Your task to perform on an android device: Install the Facebook app Image 0: 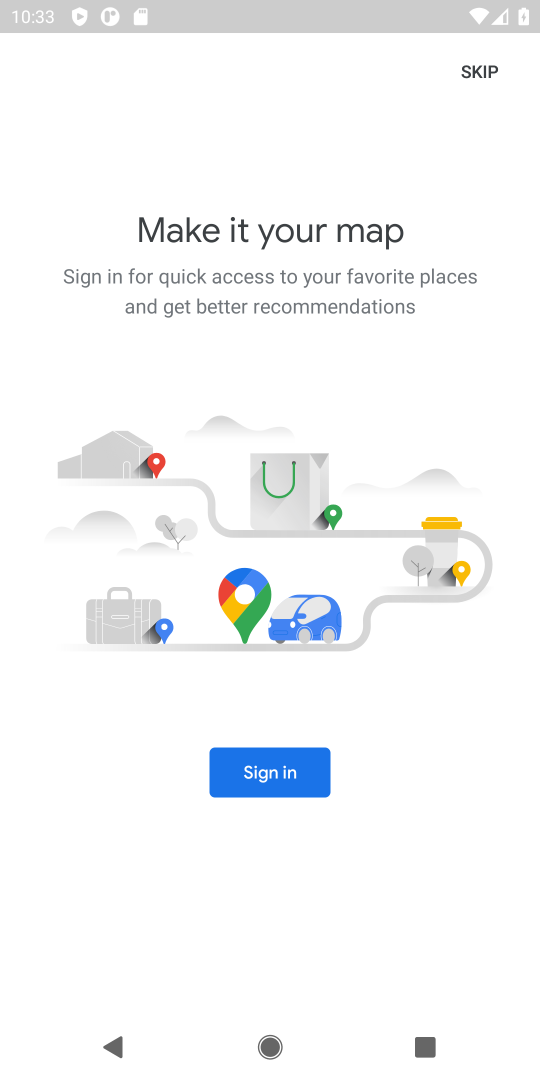
Step 0: press home button
Your task to perform on an android device: Install the Facebook app Image 1: 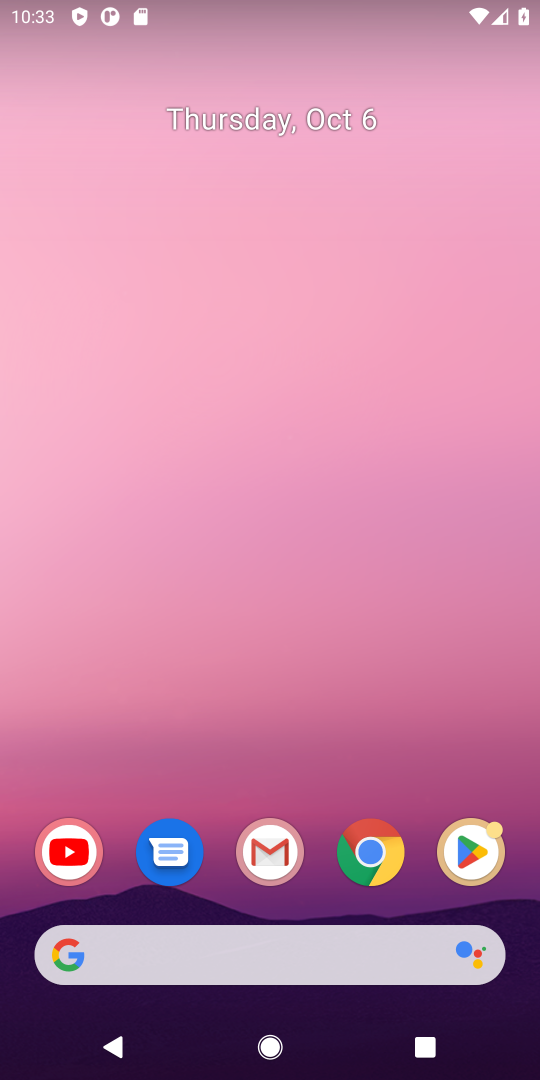
Step 1: click (447, 850)
Your task to perform on an android device: Install the Facebook app Image 2: 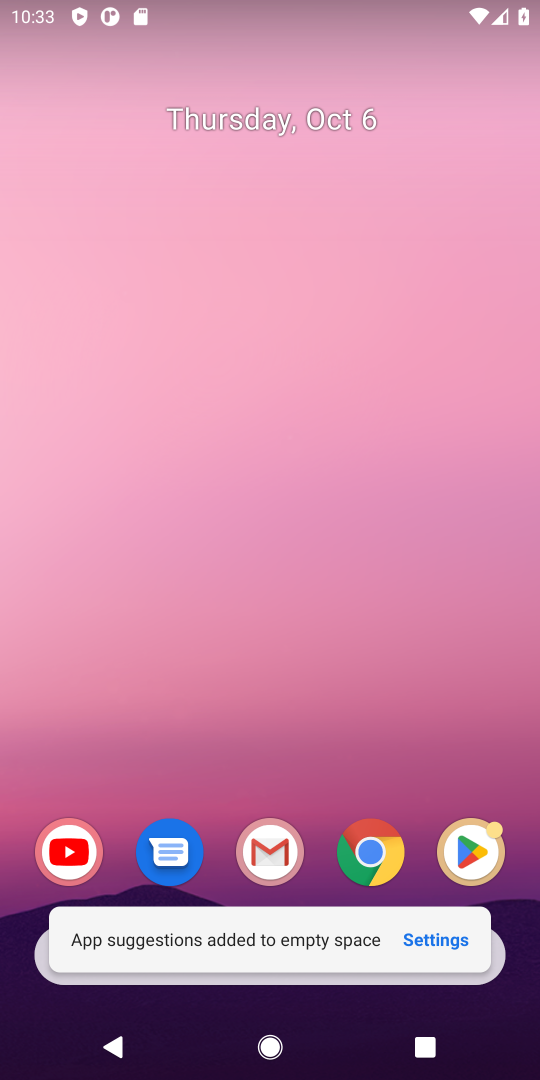
Step 2: click (478, 839)
Your task to perform on an android device: Install the Facebook app Image 3: 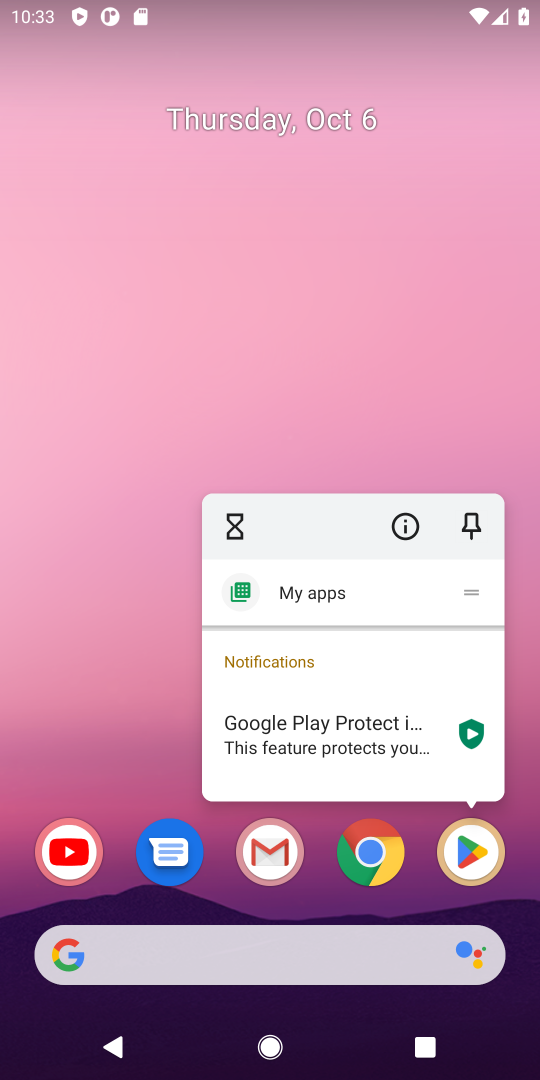
Step 3: click (436, 810)
Your task to perform on an android device: Install the Facebook app Image 4: 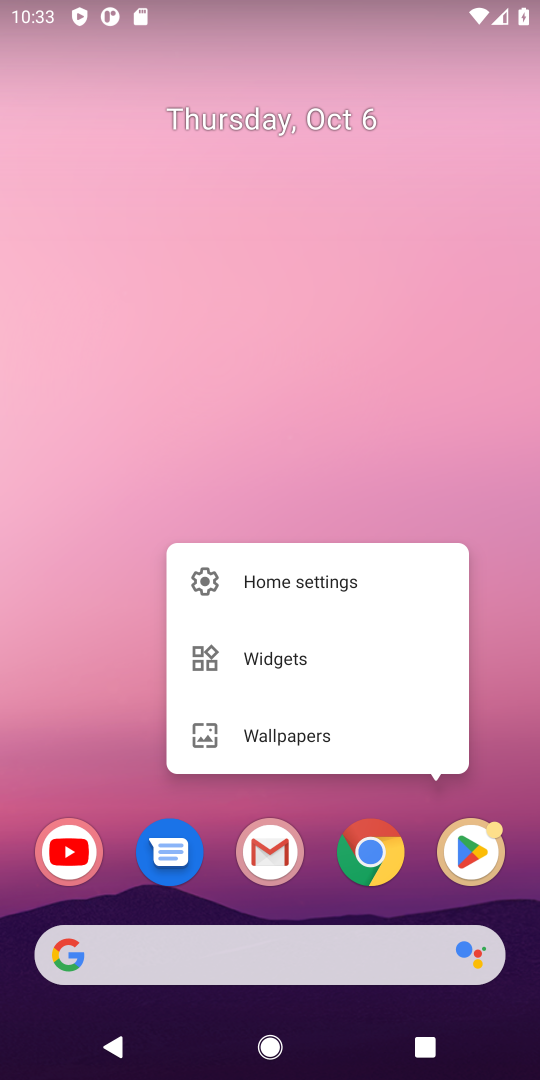
Step 4: drag from (220, 888) to (373, 121)
Your task to perform on an android device: Install the Facebook app Image 5: 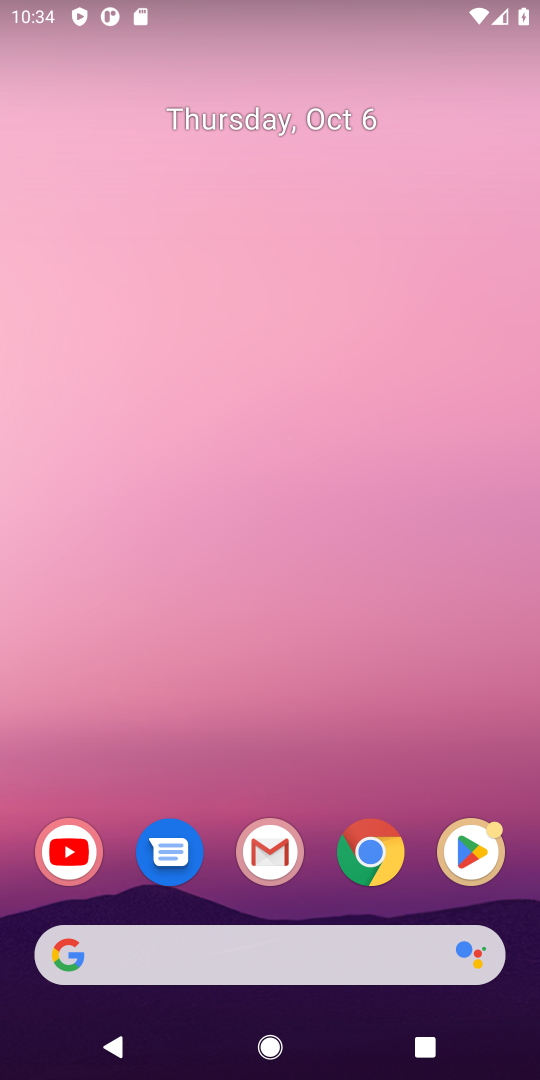
Step 5: drag from (228, 762) to (323, 339)
Your task to perform on an android device: Install the Facebook app Image 6: 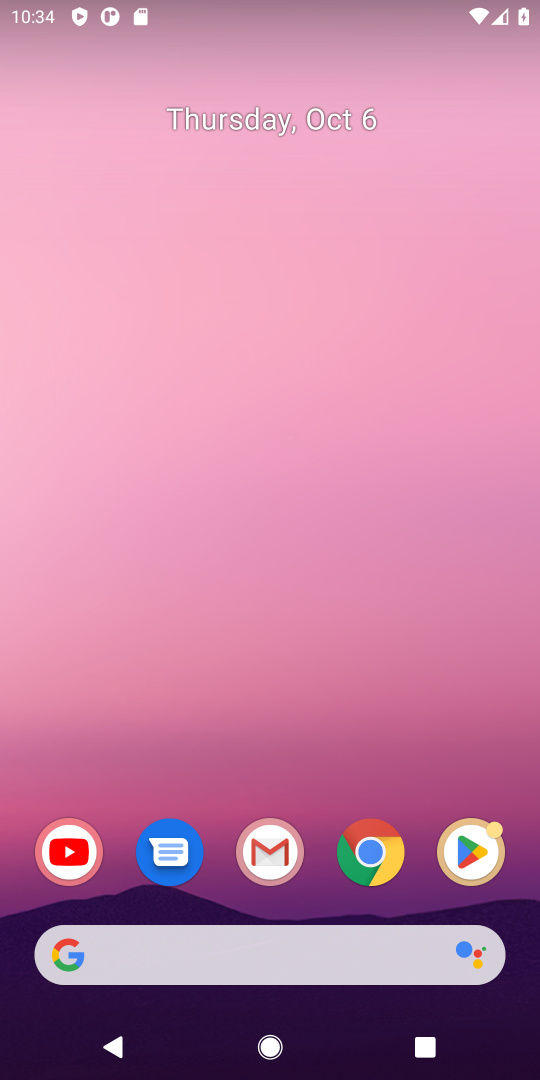
Step 6: drag from (228, 893) to (290, 320)
Your task to perform on an android device: Install the Facebook app Image 7: 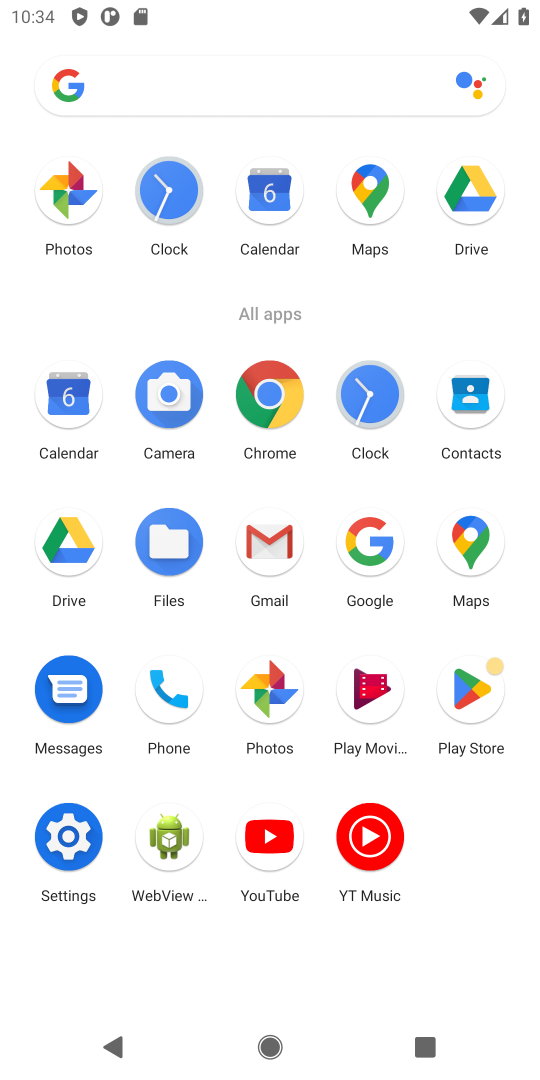
Step 7: click (470, 667)
Your task to perform on an android device: Install the Facebook app Image 8: 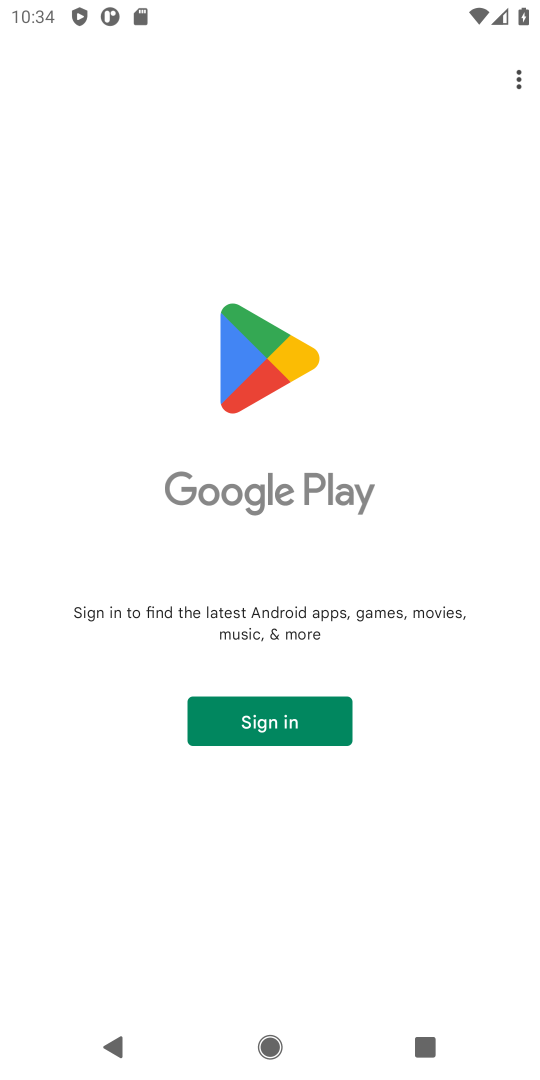
Step 8: click (252, 729)
Your task to perform on an android device: Install the Facebook app Image 9: 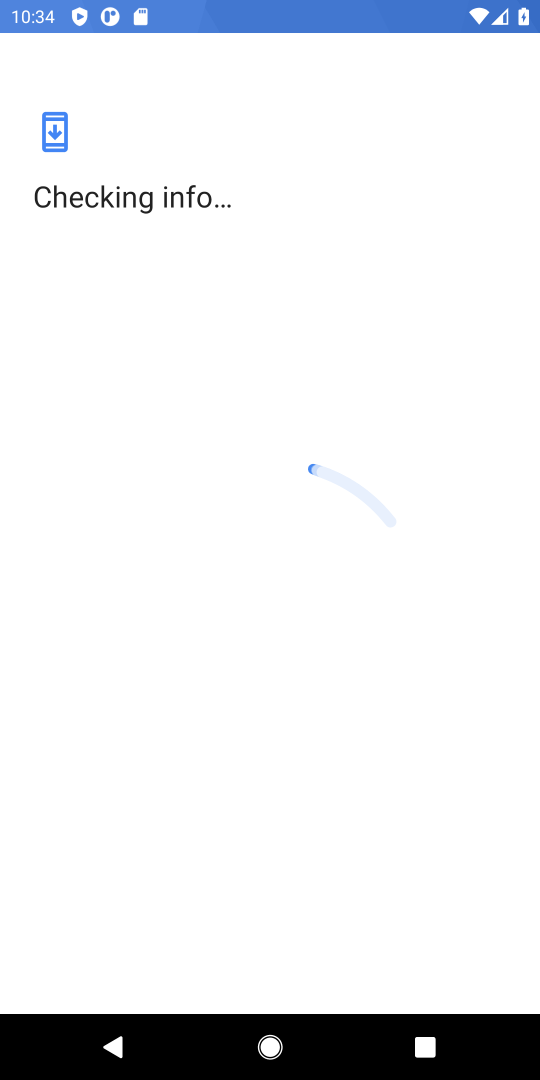
Step 9: task complete